Your task to perform on an android device: What's the weather going to be tomorrow? Image 0: 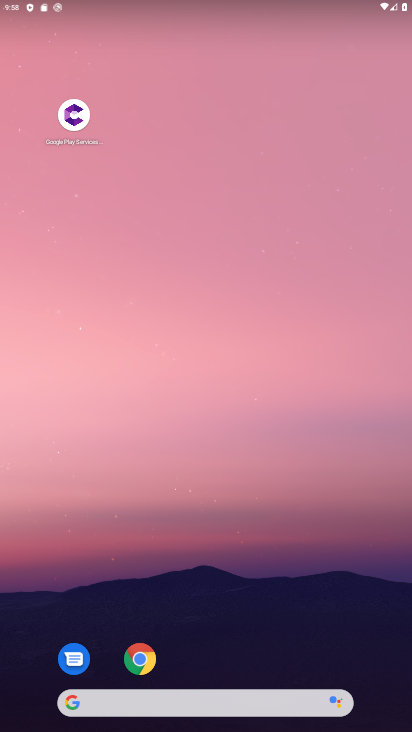
Step 0: drag from (210, 633) to (275, 18)
Your task to perform on an android device: What's the weather going to be tomorrow? Image 1: 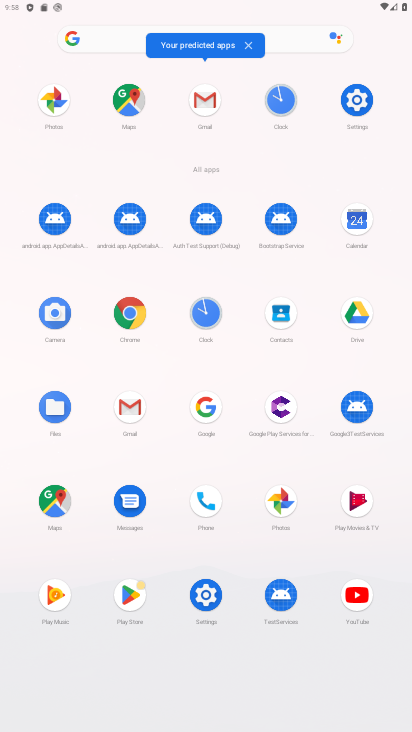
Step 1: click (111, 36)
Your task to perform on an android device: What's the weather going to be tomorrow? Image 2: 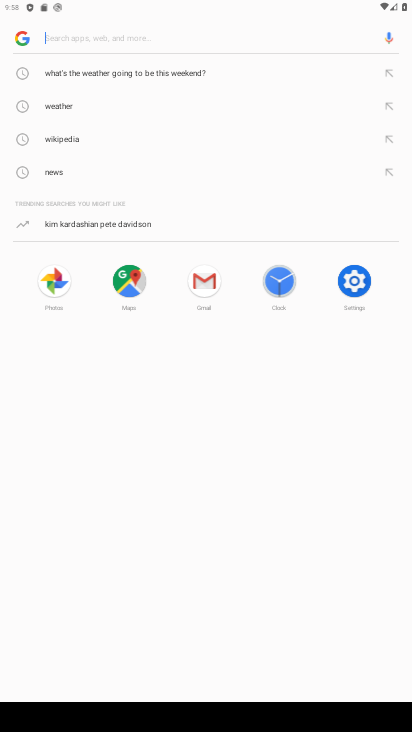
Step 2: type "weather"
Your task to perform on an android device: What's the weather going to be tomorrow? Image 3: 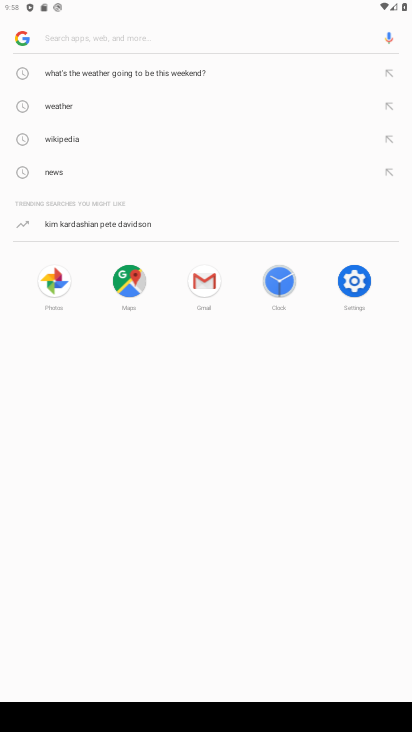
Step 3: click (61, 99)
Your task to perform on an android device: What's the weather going to be tomorrow? Image 4: 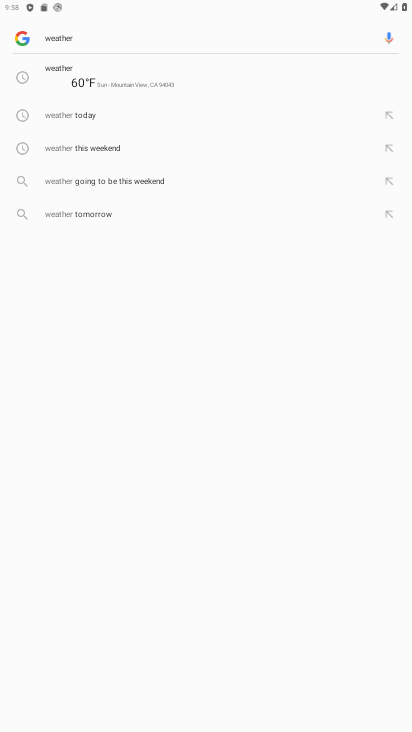
Step 4: click (109, 71)
Your task to perform on an android device: What's the weather going to be tomorrow? Image 5: 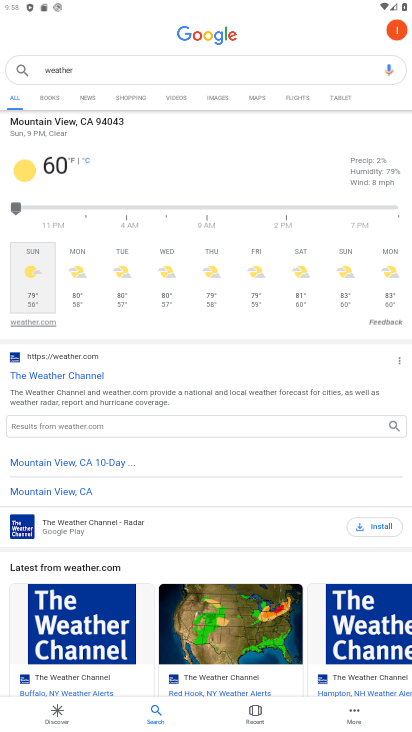
Step 5: click (78, 244)
Your task to perform on an android device: What's the weather going to be tomorrow? Image 6: 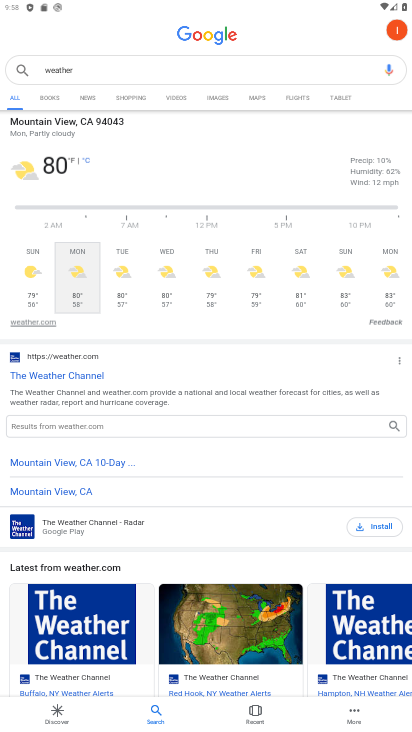
Step 6: task complete